Your task to perform on an android device: Open the Play Movies app and select the watchlist tab. Image 0: 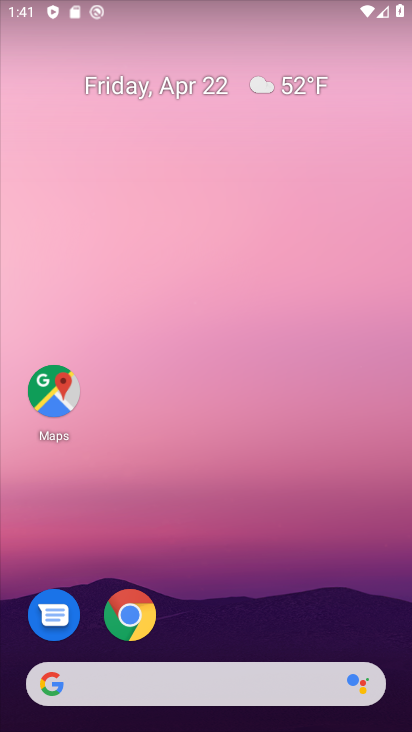
Step 0: drag from (196, 646) to (299, 128)
Your task to perform on an android device: Open the Play Movies app and select the watchlist tab. Image 1: 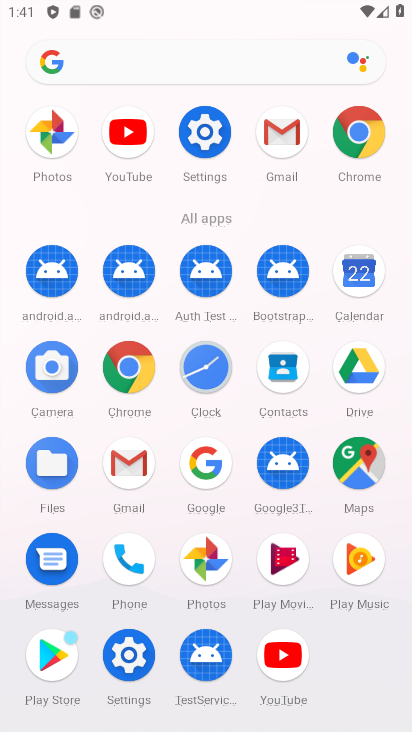
Step 1: click (288, 567)
Your task to perform on an android device: Open the Play Movies app and select the watchlist tab. Image 2: 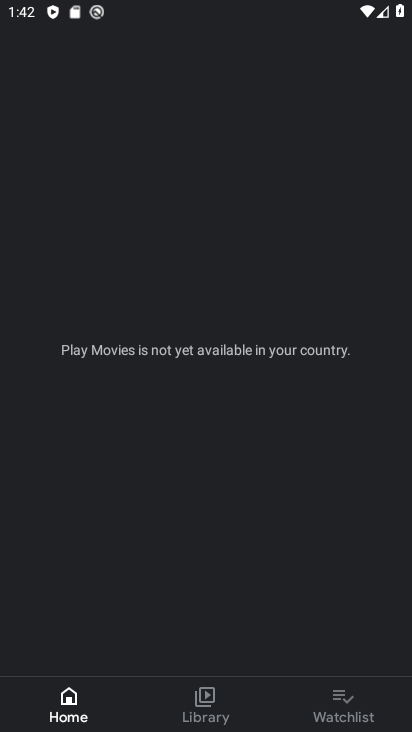
Step 2: click (345, 708)
Your task to perform on an android device: Open the Play Movies app and select the watchlist tab. Image 3: 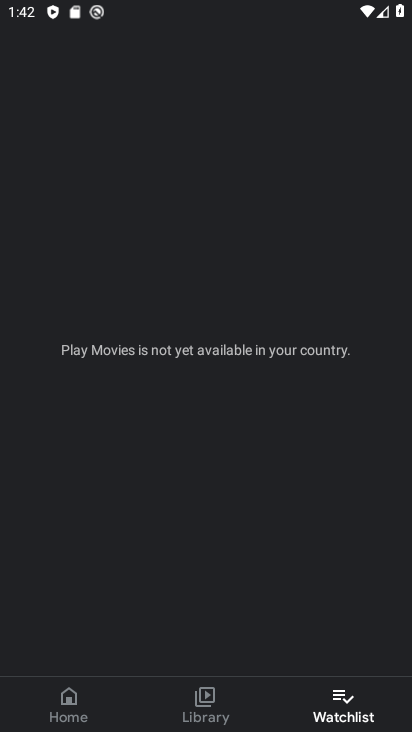
Step 3: task complete